Your task to perform on an android device: Open my contact list Image 0: 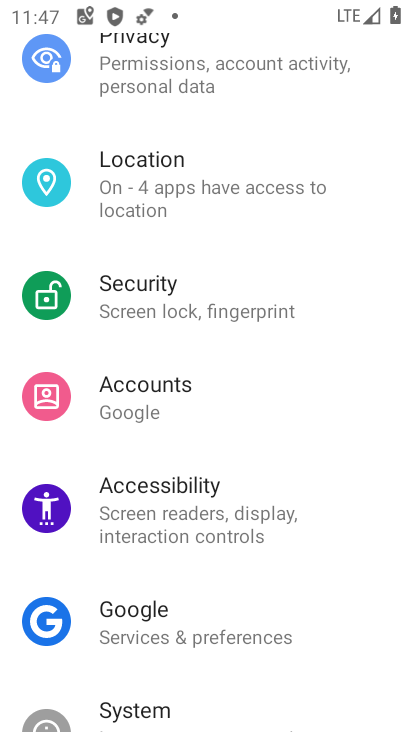
Step 0: press home button
Your task to perform on an android device: Open my contact list Image 1: 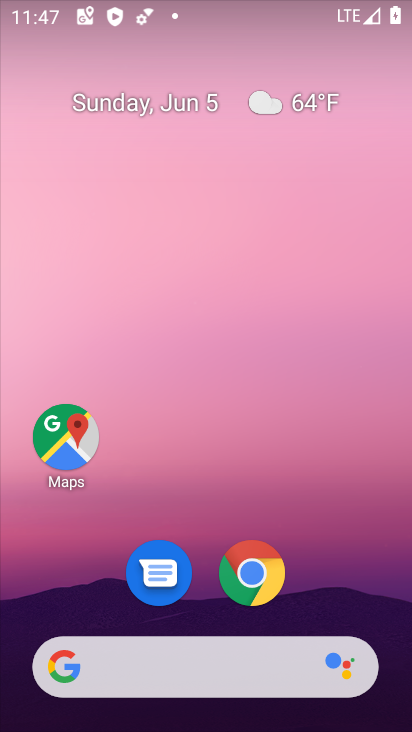
Step 1: drag from (46, 431) to (214, 210)
Your task to perform on an android device: Open my contact list Image 2: 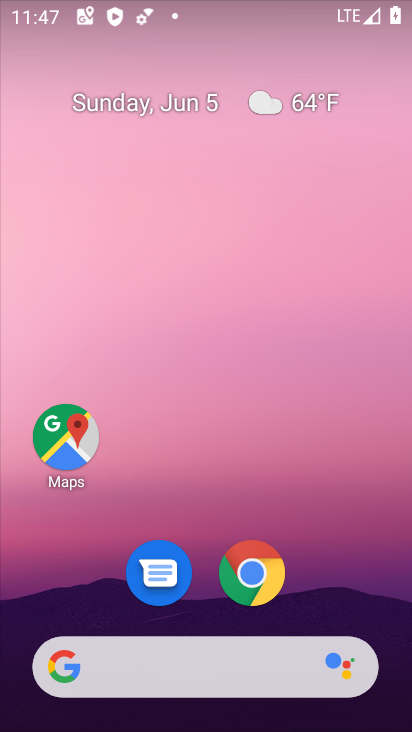
Step 2: drag from (15, 724) to (353, 177)
Your task to perform on an android device: Open my contact list Image 3: 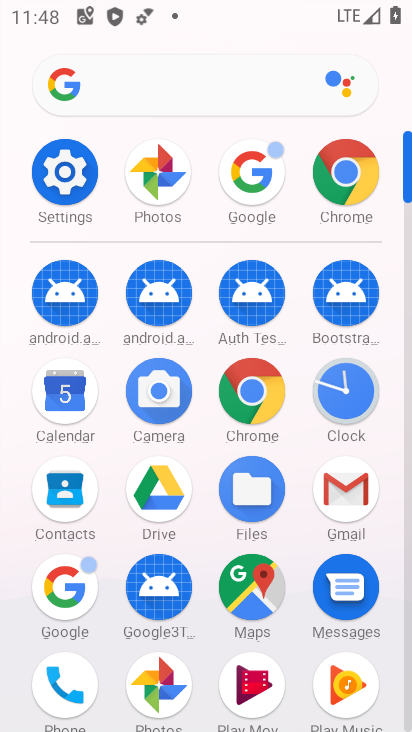
Step 3: click (65, 663)
Your task to perform on an android device: Open my contact list Image 4: 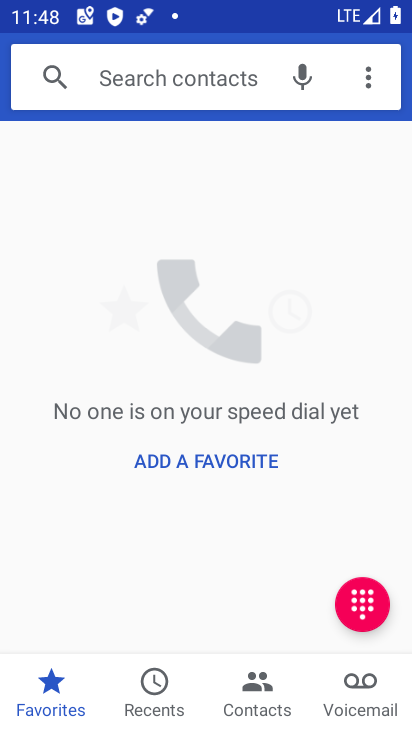
Step 4: click (262, 701)
Your task to perform on an android device: Open my contact list Image 5: 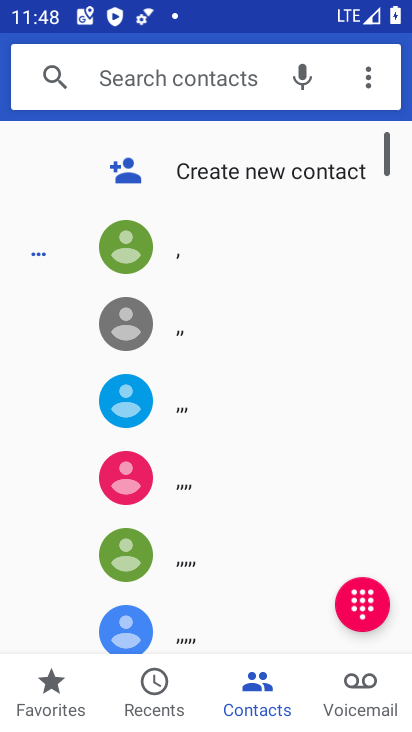
Step 5: task complete